Your task to perform on an android device: Add "amazon basics triple a" to the cart on ebay, then select checkout. Image 0: 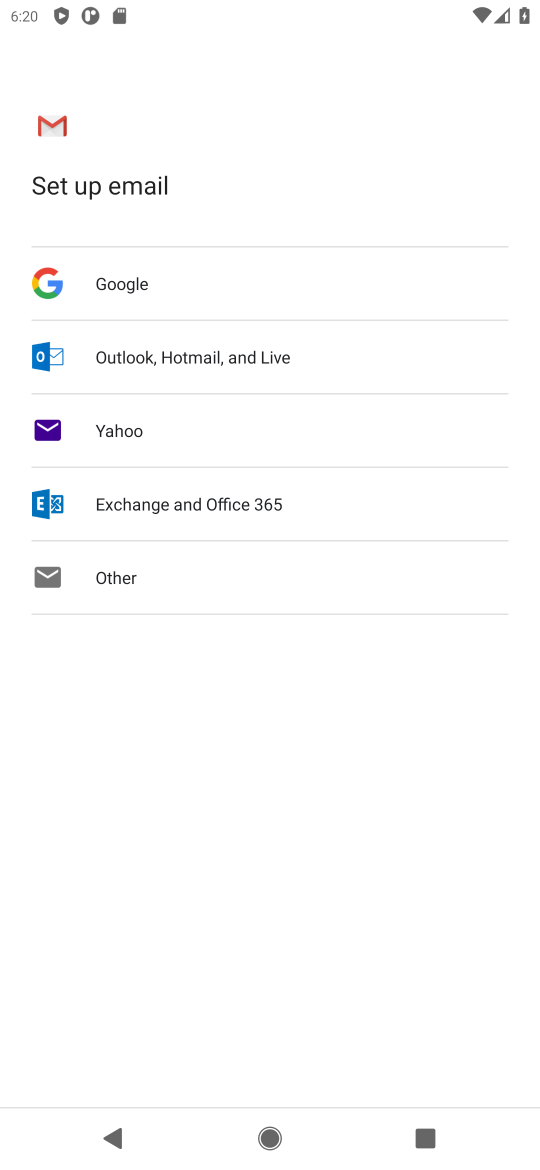
Step 0: press home button
Your task to perform on an android device: Add "amazon basics triple a" to the cart on ebay, then select checkout. Image 1: 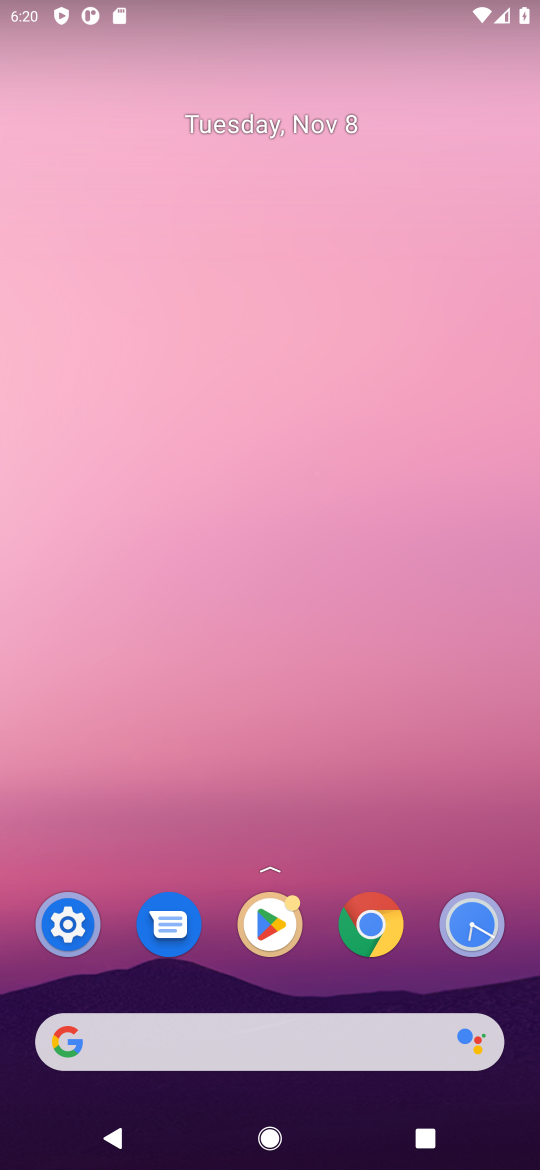
Step 1: click (183, 1047)
Your task to perform on an android device: Add "amazon basics triple a" to the cart on ebay, then select checkout. Image 2: 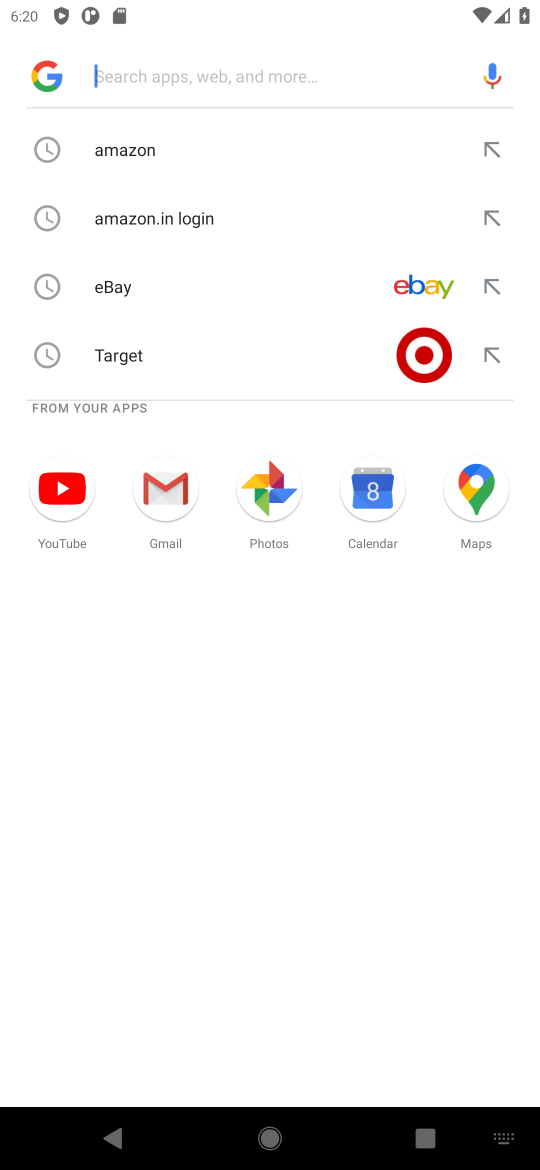
Step 2: click (146, 297)
Your task to perform on an android device: Add "amazon basics triple a" to the cart on ebay, then select checkout. Image 3: 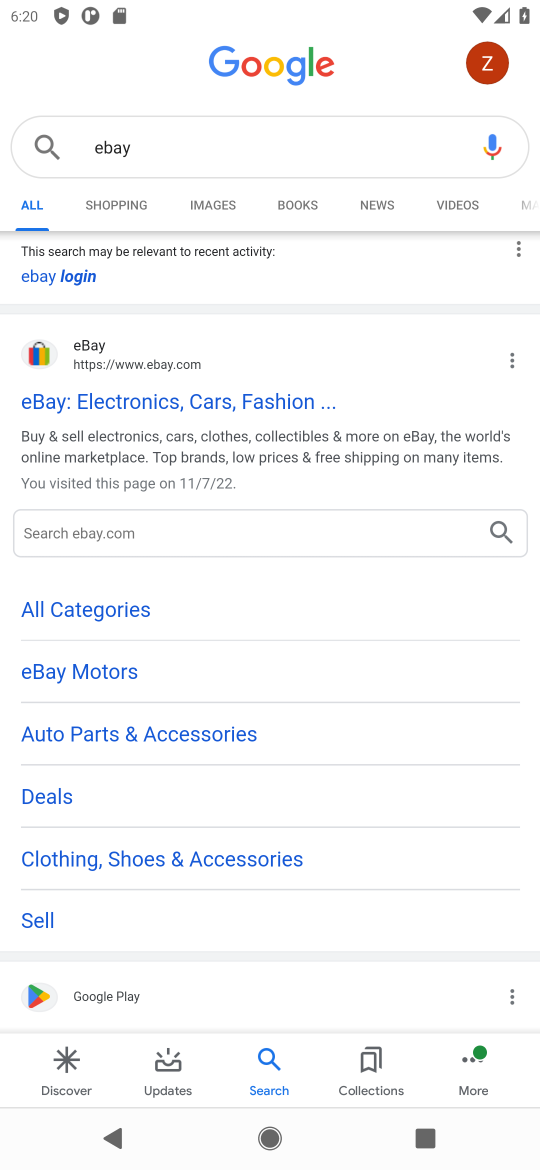
Step 3: click (77, 360)
Your task to perform on an android device: Add "amazon basics triple a" to the cart on ebay, then select checkout. Image 4: 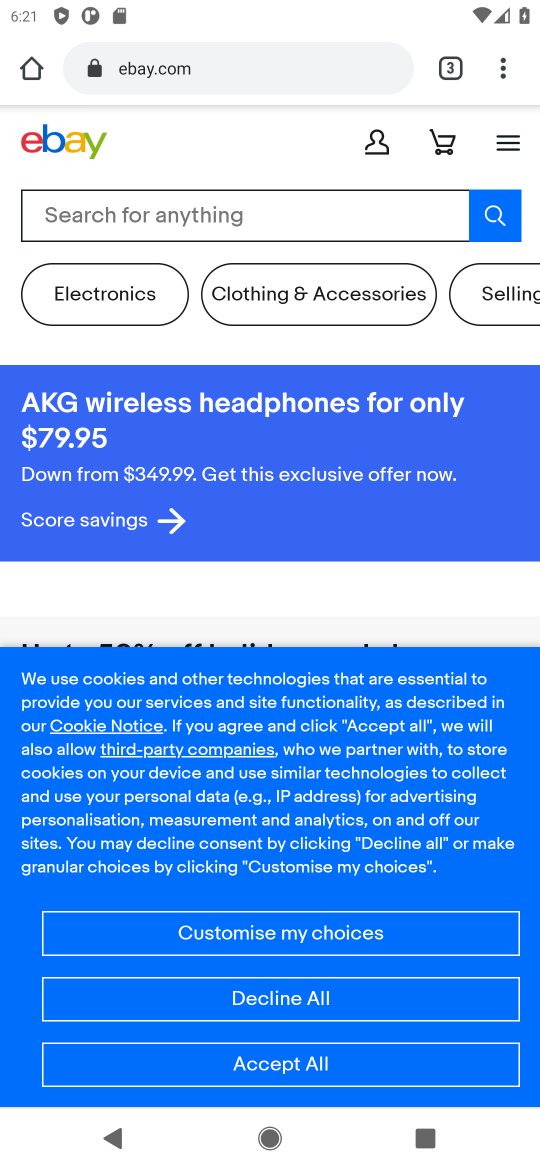
Step 4: click (237, 226)
Your task to perform on an android device: Add "amazon basics triple a" to the cart on ebay, then select checkout. Image 5: 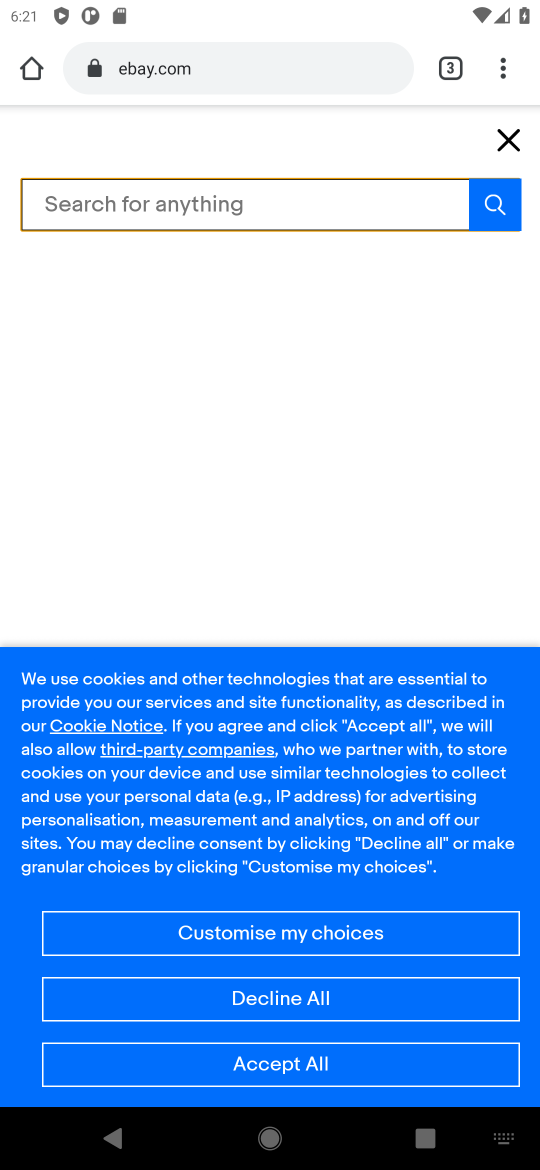
Step 5: type "amazon basics triple a"
Your task to perform on an android device: Add "amazon basics triple a" to the cart on ebay, then select checkout. Image 6: 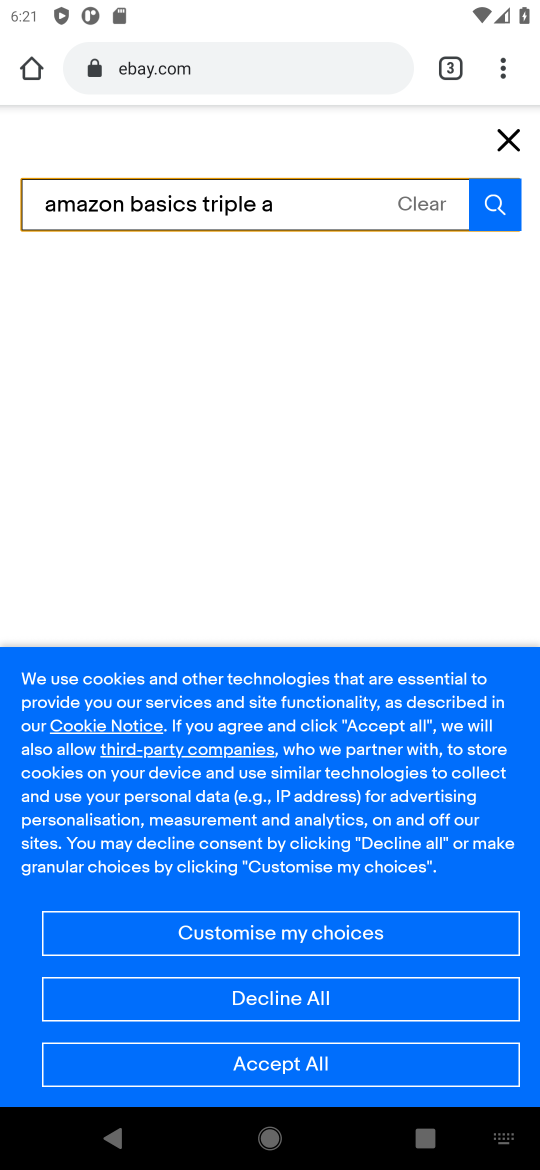
Step 6: click (500, 219)
Your task to perform on an android device: Add "amazon basics triple a" to the cart on ebay, then select checkout. Image 7: 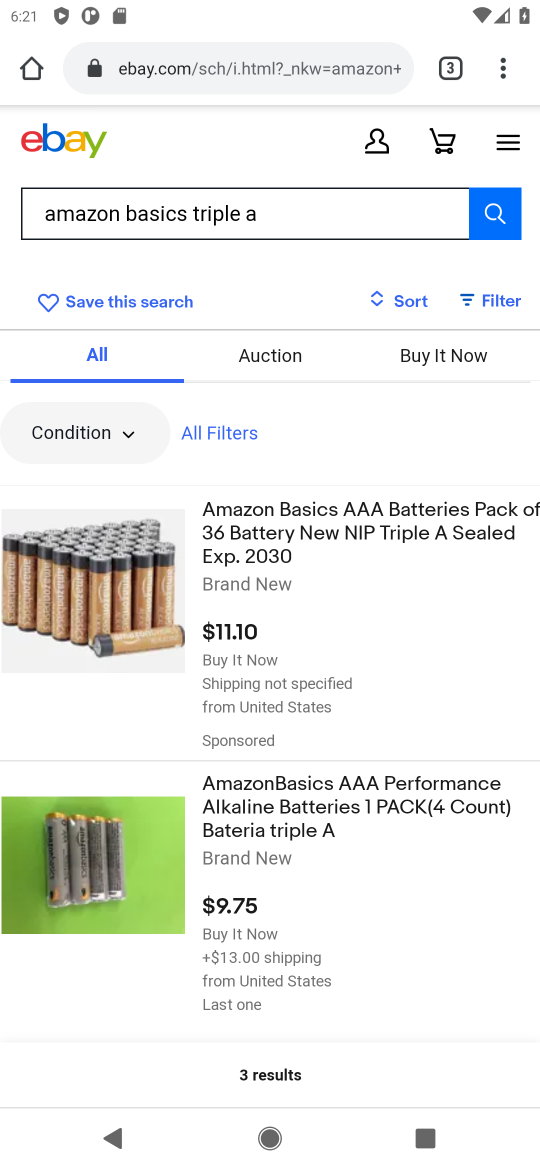
Step 7: click (295, 524)
Your task to perform on an android device: Add "amazon basics triple a" to the cart on ebay, then select checkout. Image 8: 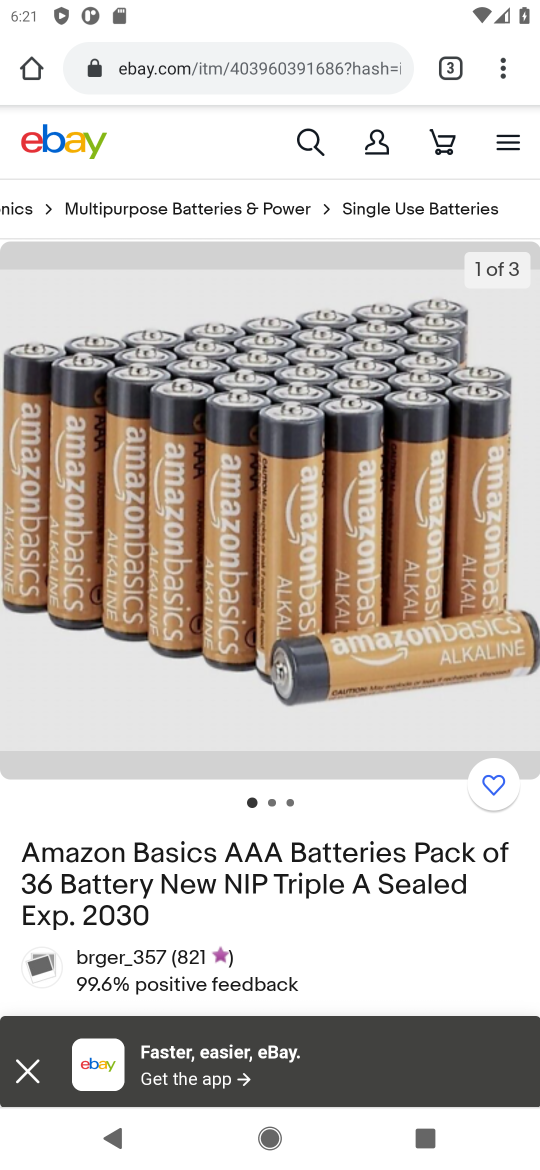
Step 8: drag from (201, 918) to (308, 471)
Your task to perform on an android device: Add "amazon basics triple a" to the cart on ebay, then select checkout. Image 9: 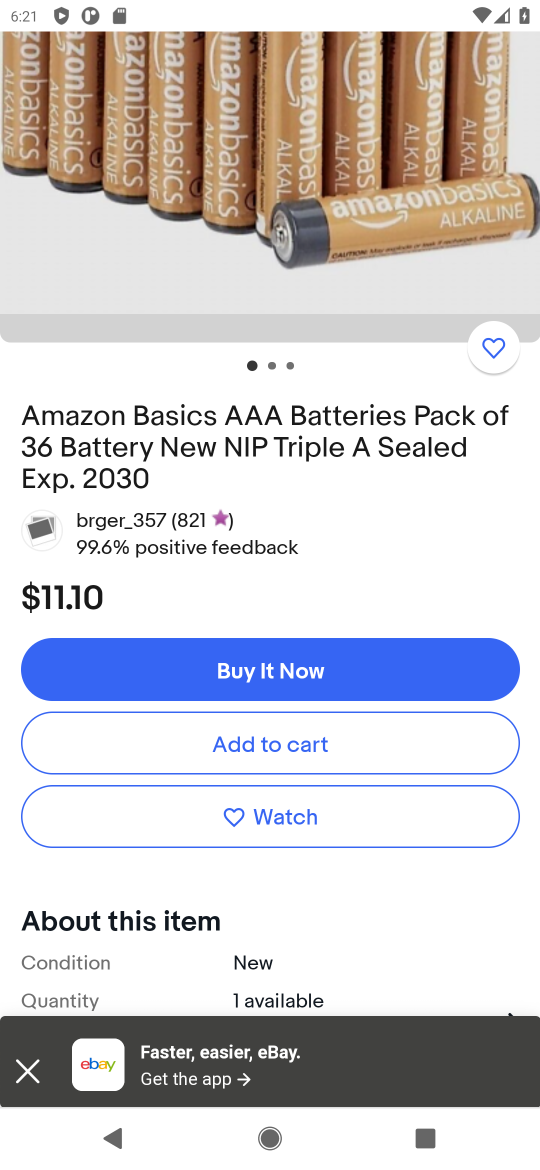
Step 9: click (267, 750)
Your task to perform on an android device: Add "amazon basics triple a" to the cart on ebay, then select checkout. Image 10: 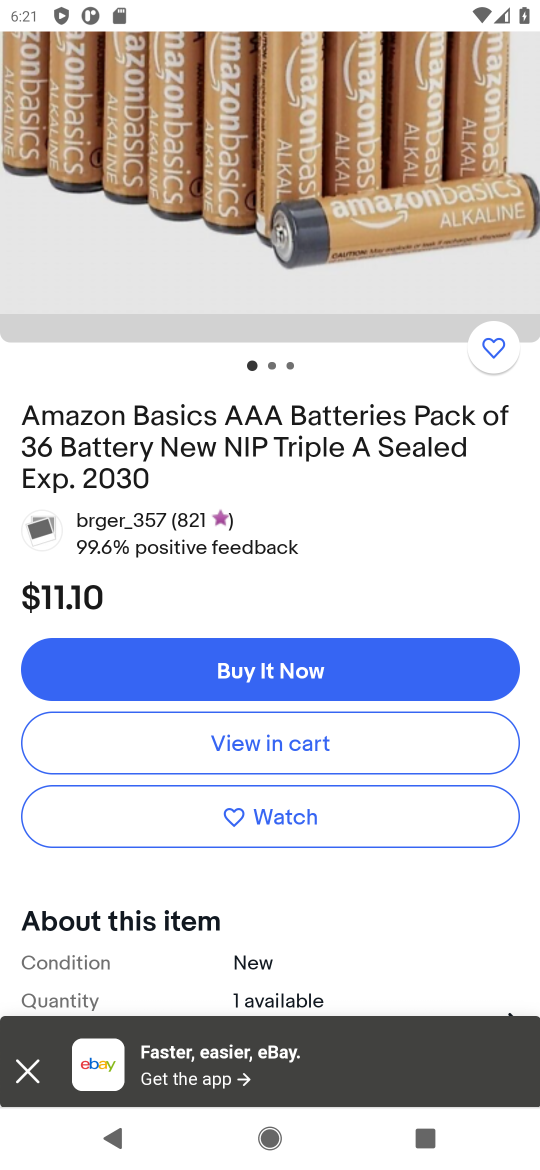
Step 10: click (284, 732)
Your task to perform on an android device: Add "amazon basics triple a" to the cart on ebay, then select checkout. Image 11: 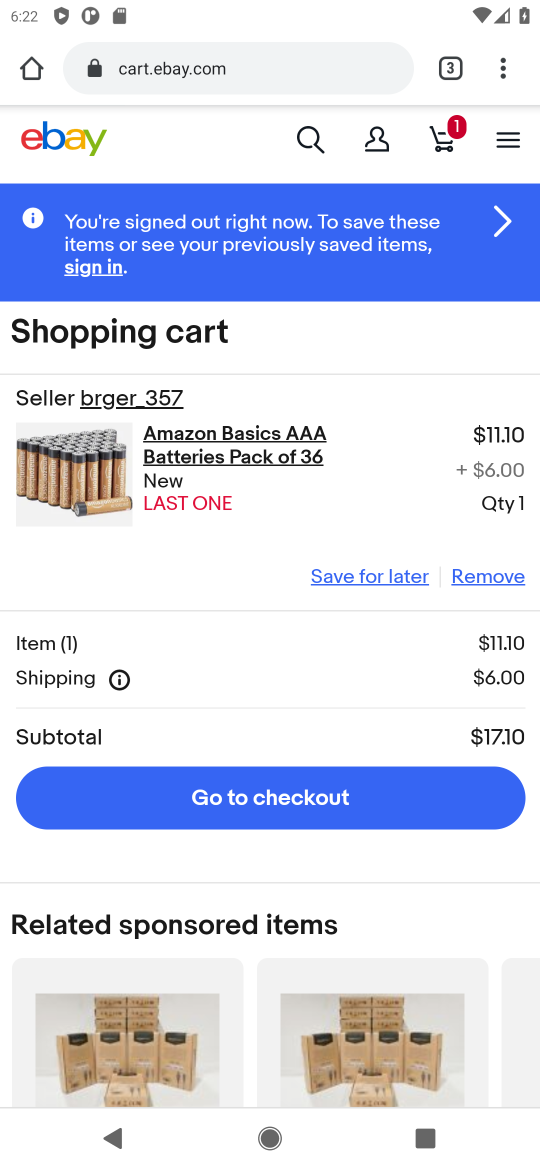
Step 11: click (280, 801)
Your task to perform on an android device: Add "amazon basics triple a" to the cart on ebay, then select checkout. Image 12: 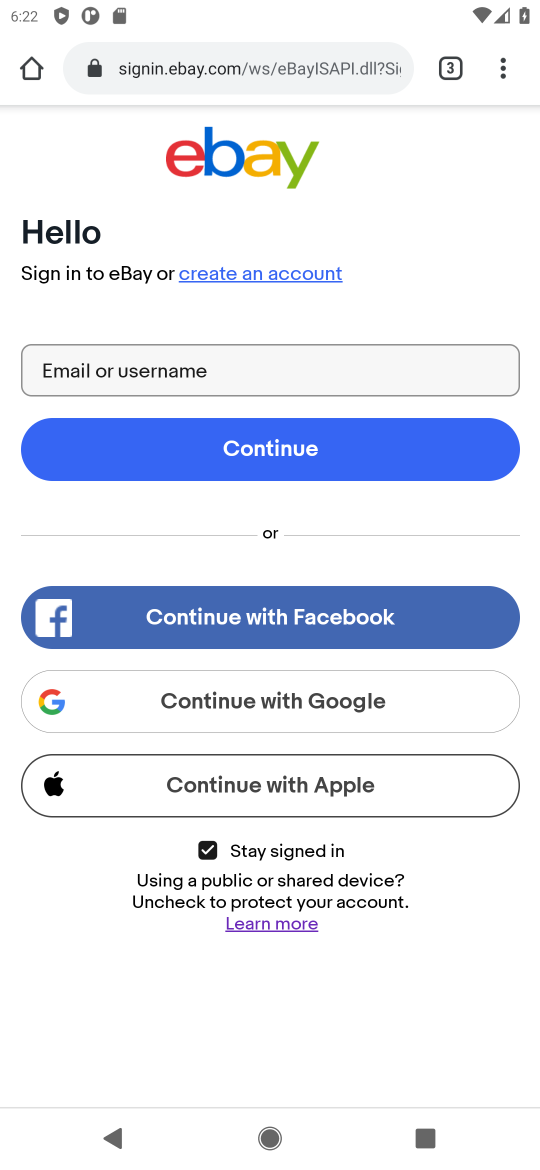
Step 12: task complete